Your task to perform on an android device: Open CNN.com Image 0: 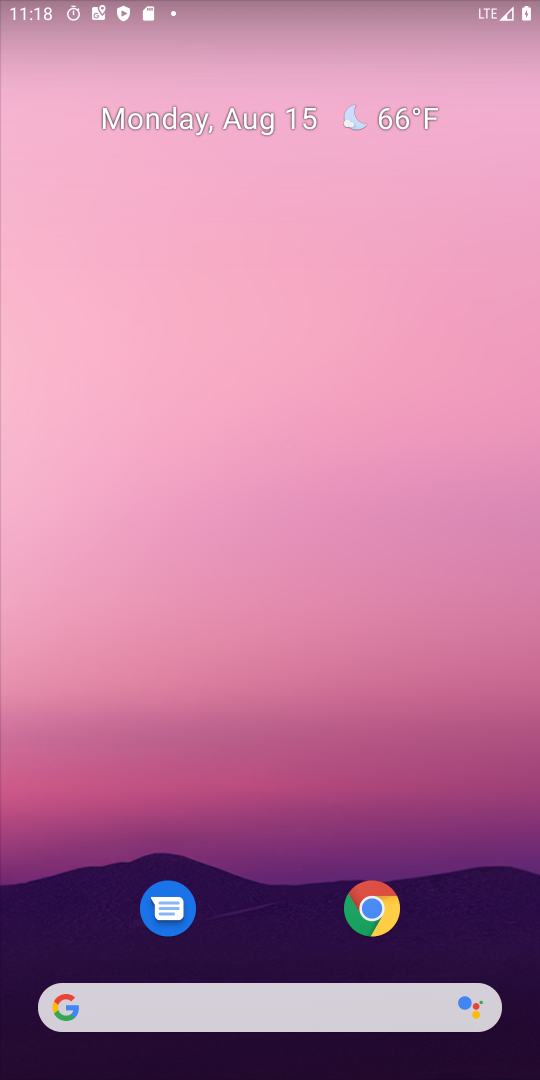
Step 0: click (344, 1002)
Your task to perform on an android device: Open CNN.com Image 1: 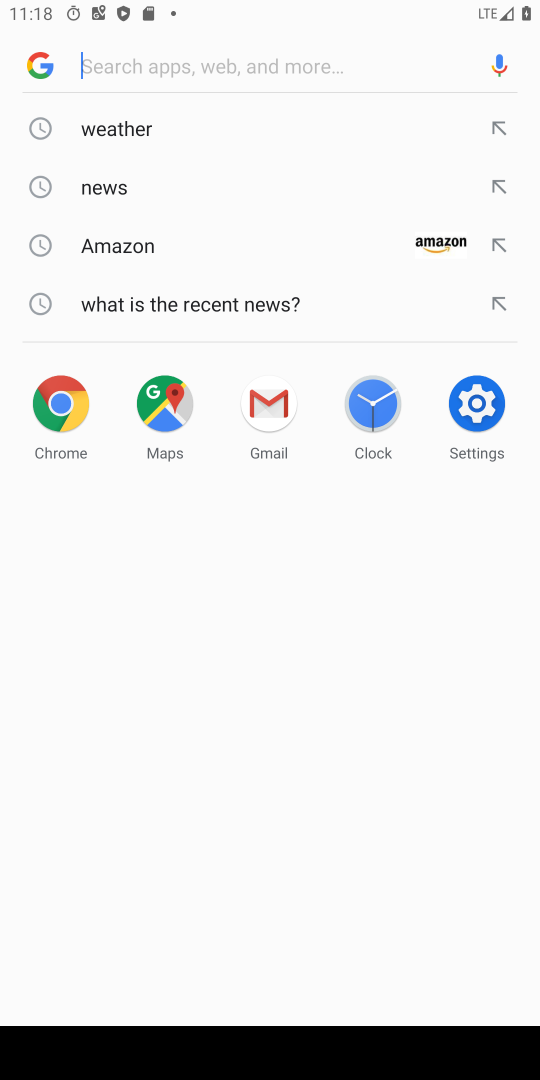
Step 1: type "cnn"
Your task to perform on an android device: Open CNN.com Image 2: 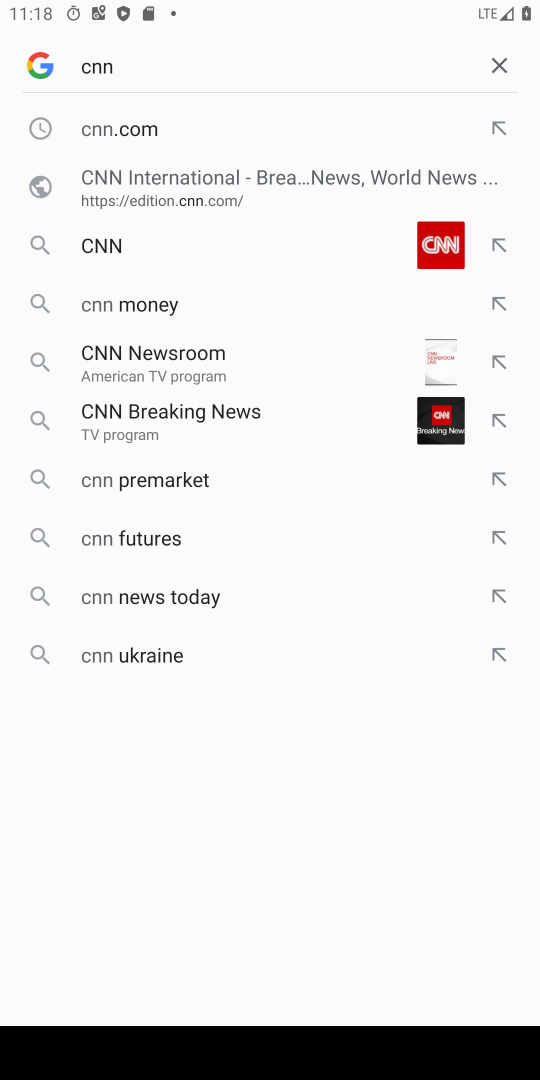
Step 2: click (176, 238)
Your task to perform on an android device: Open CNN.com Image 3: 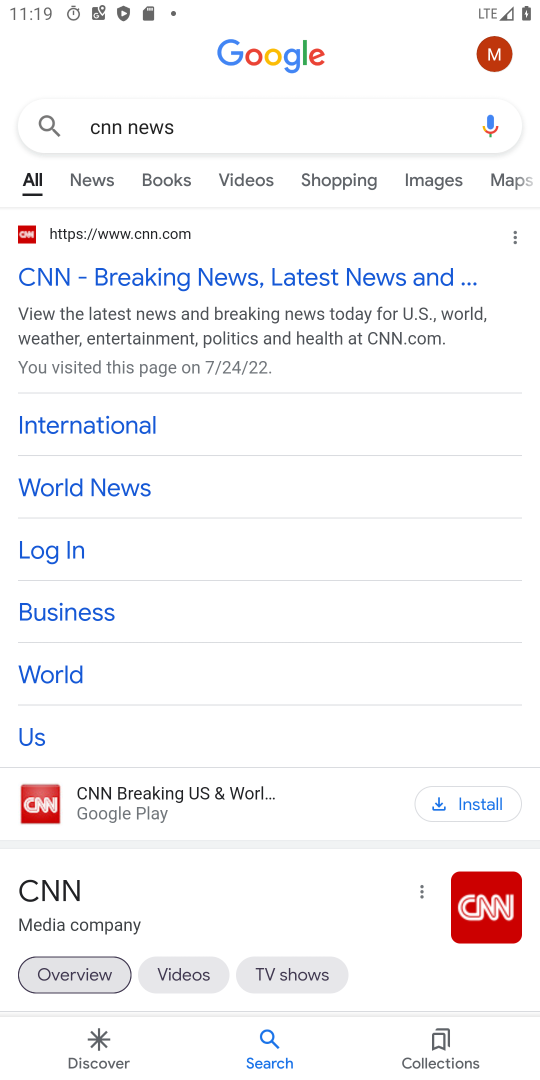
Step 3: click (256, 266)
Your task to perform on an android device: Open CNN.com Image 4: 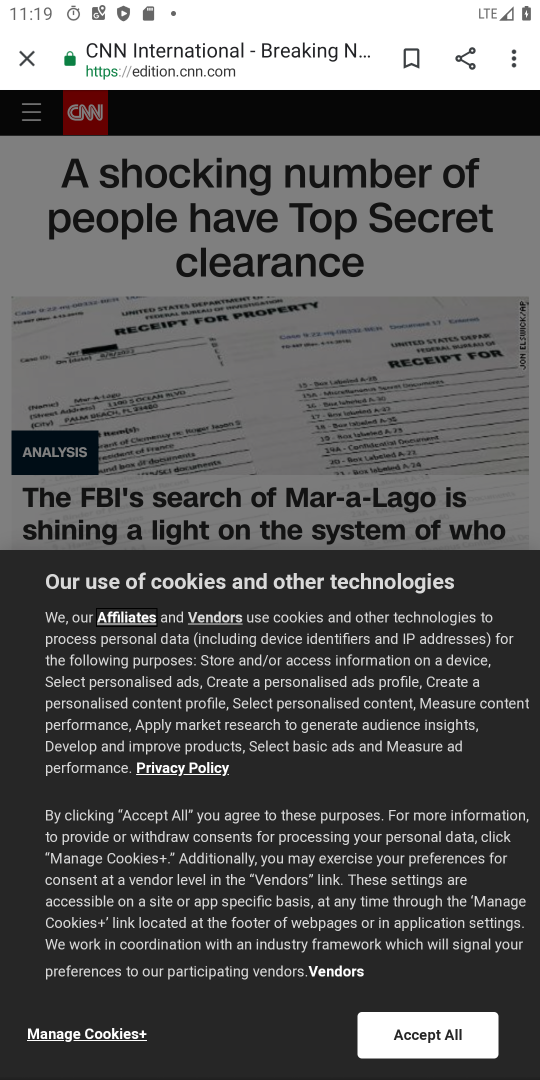
Step 4: task complete